Your task to perform on an android device: change notification settings in the gmail app Image 0: 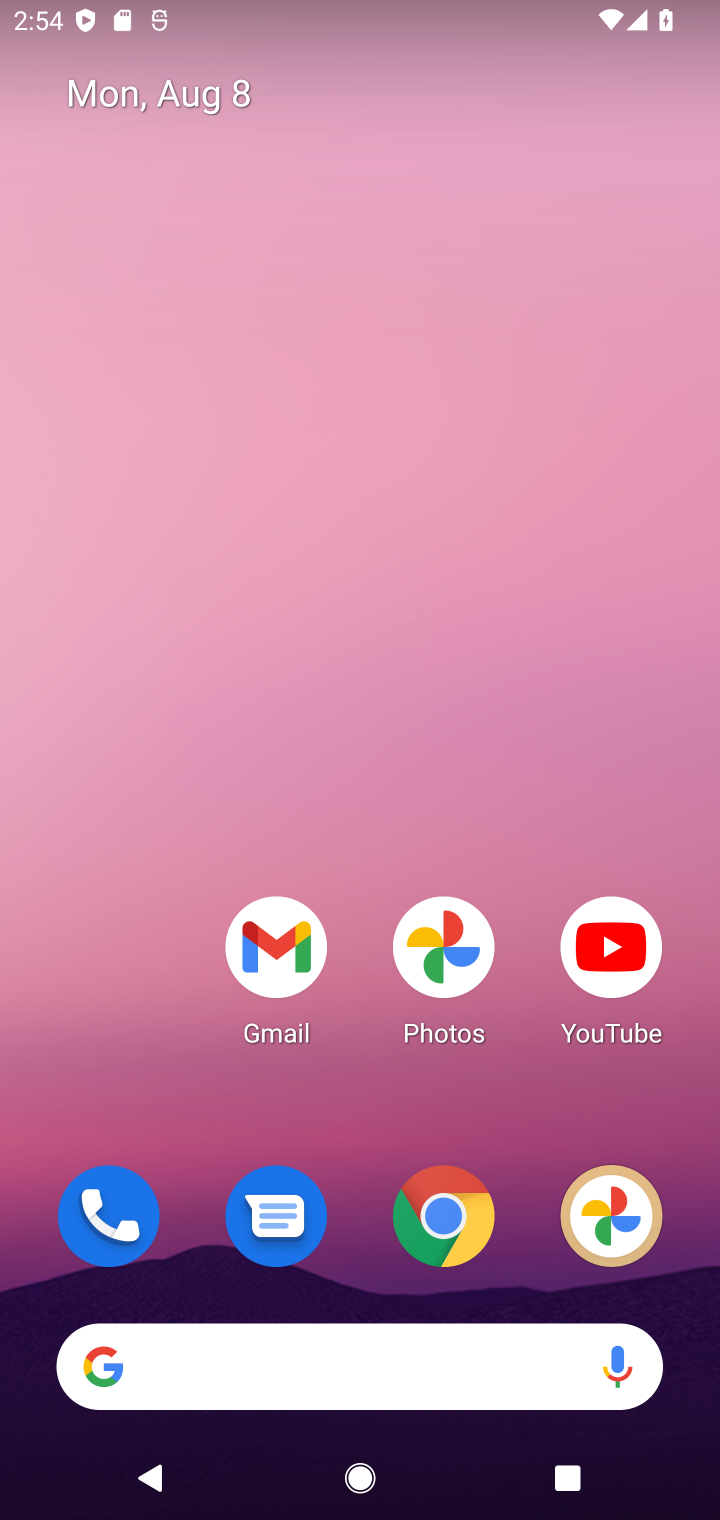
Step 0: click (294, 979)
Your task to perform on an android device: change notification settings in the gmail app Image 1: 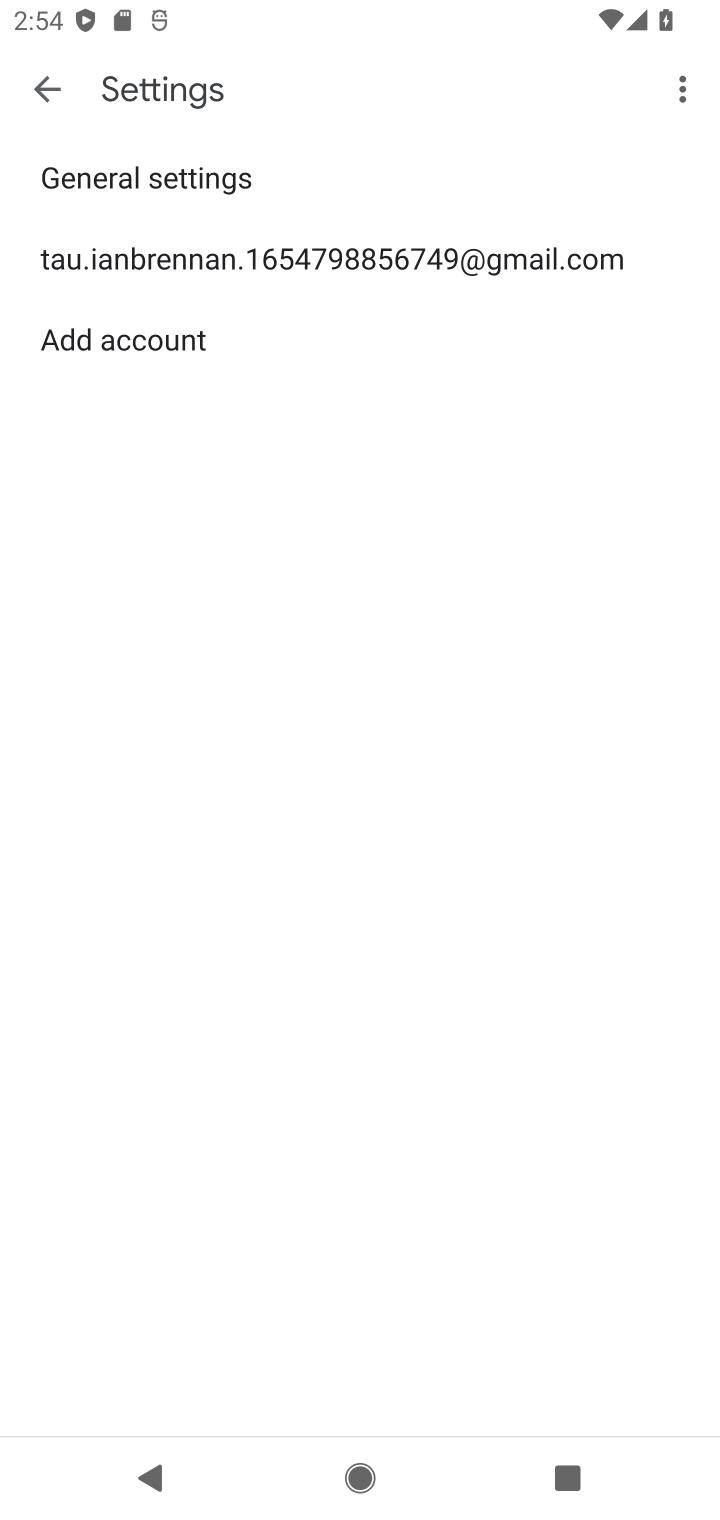
Step 1: click (328, 255)
Your task to perform on an android device: change notification settings in the gmail app Image 2: 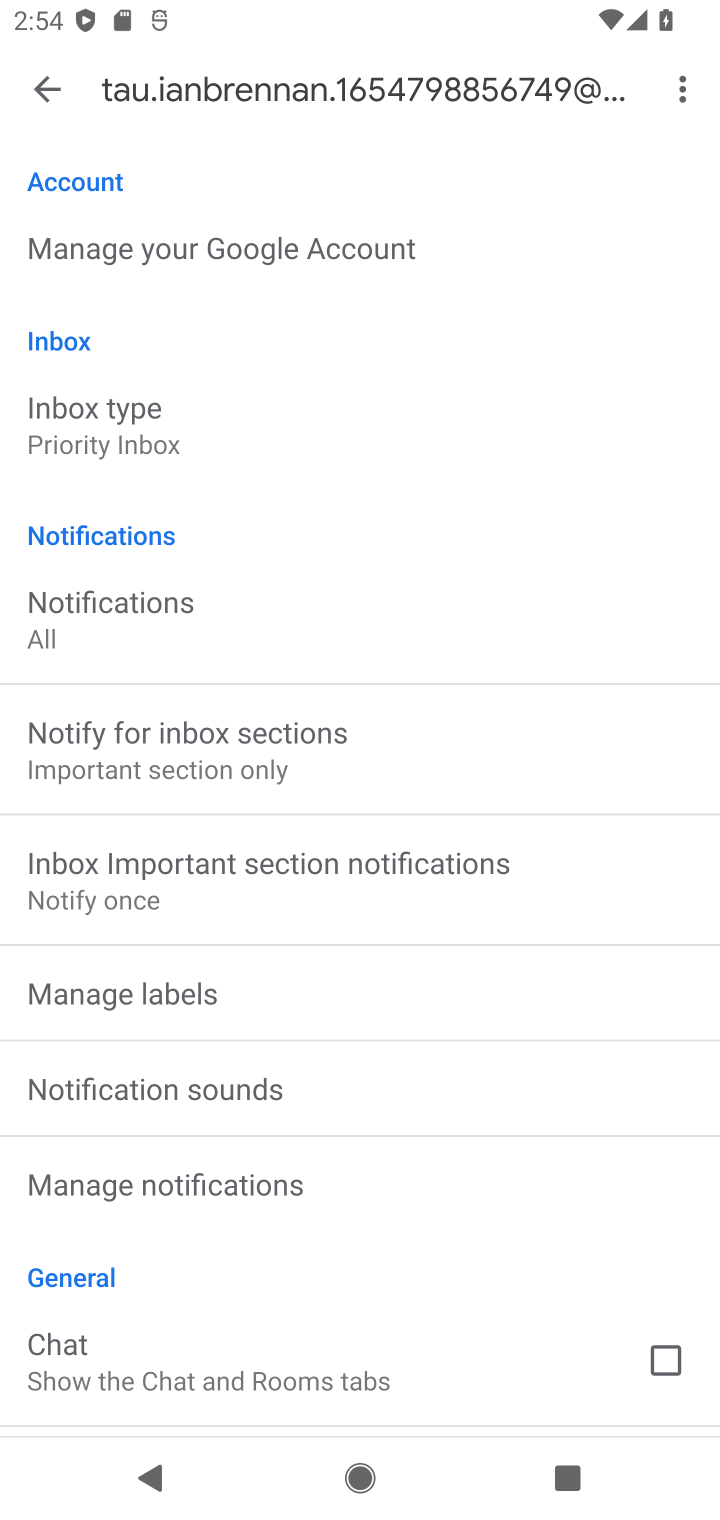
Step 2: click (417, 1234)
Your task to perform on an android device: change notification settings in the gmail app Image 3: 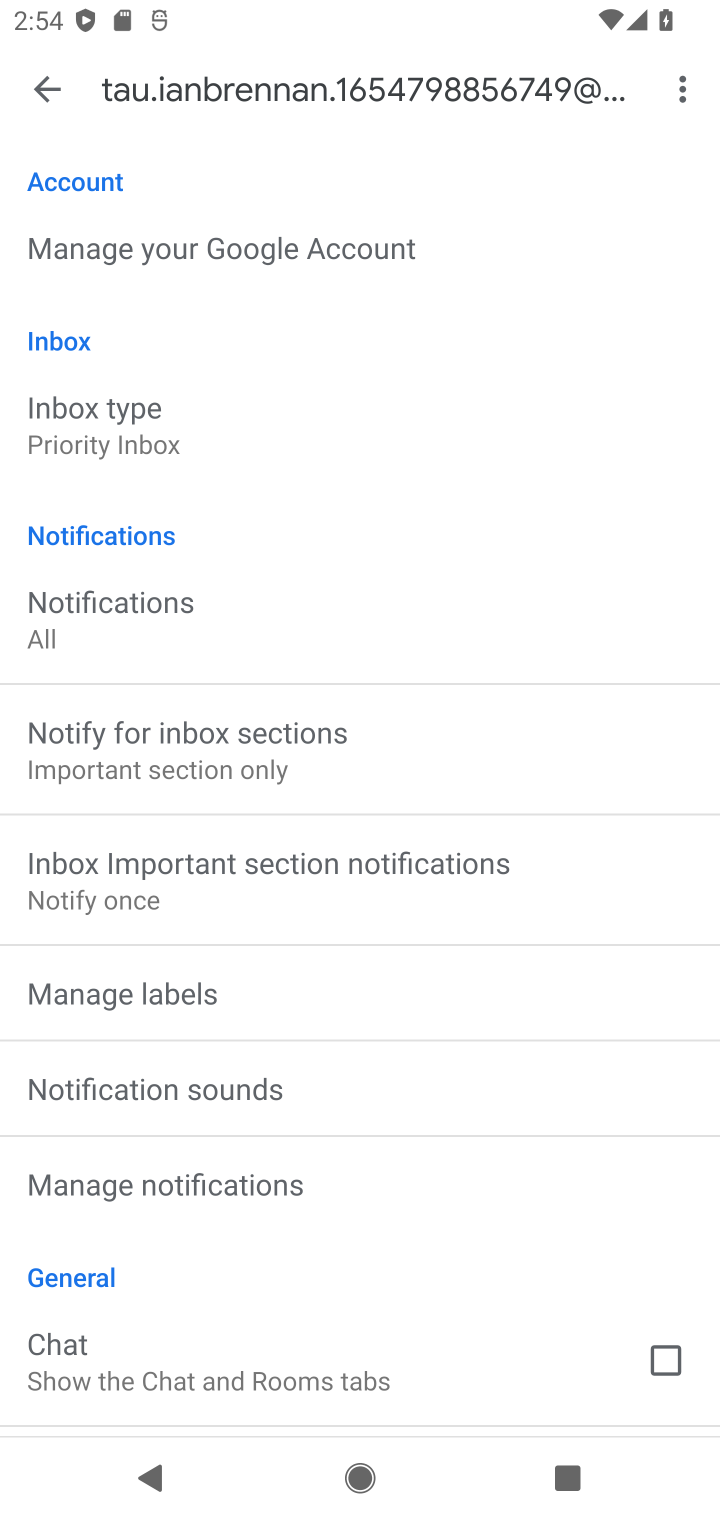
Step 3: click (339, 1207)
Your task to perform on an android device: change notification settings in the gmail app Image 4: 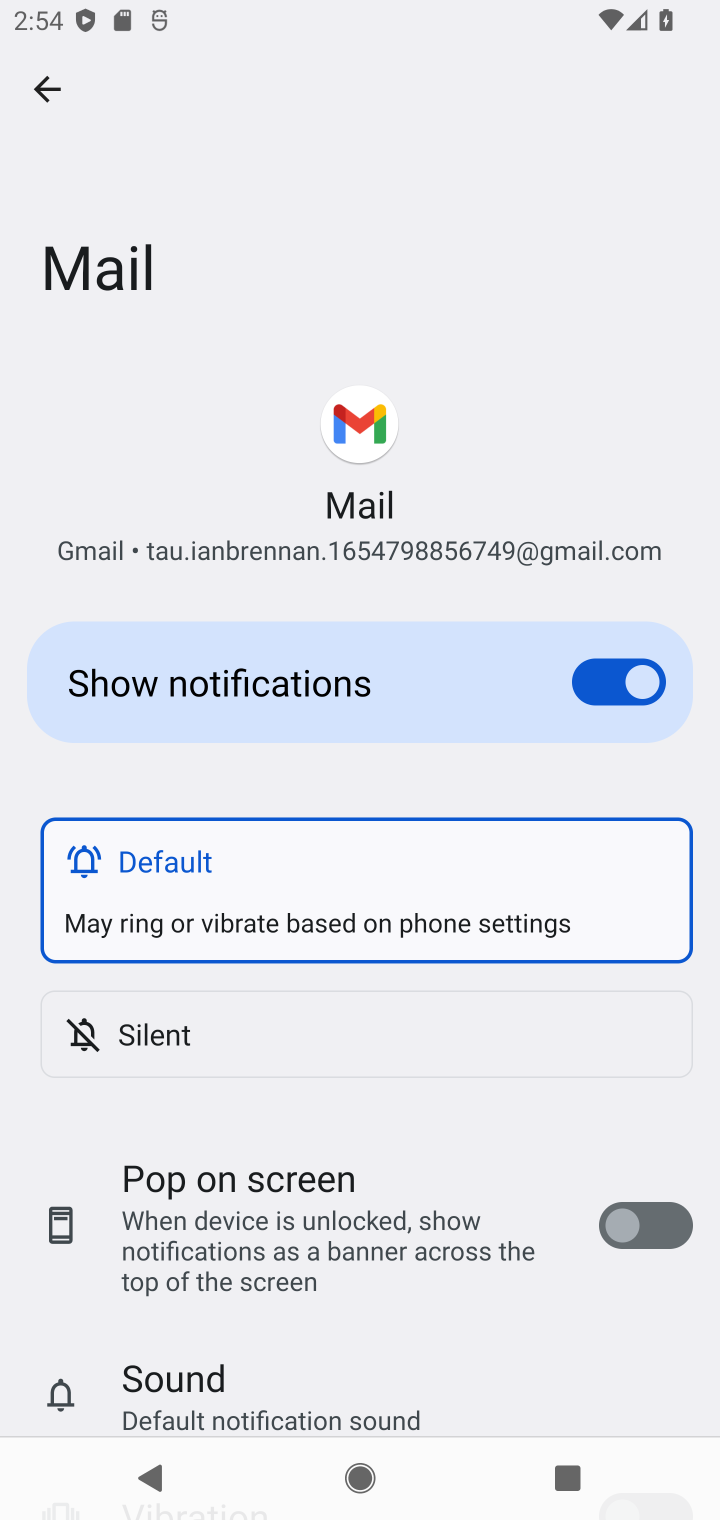
Step 4: drag from (483, 1409) to (463, 69)
Your task to perform on an android device: change notification settings in the gmail app Image 5: 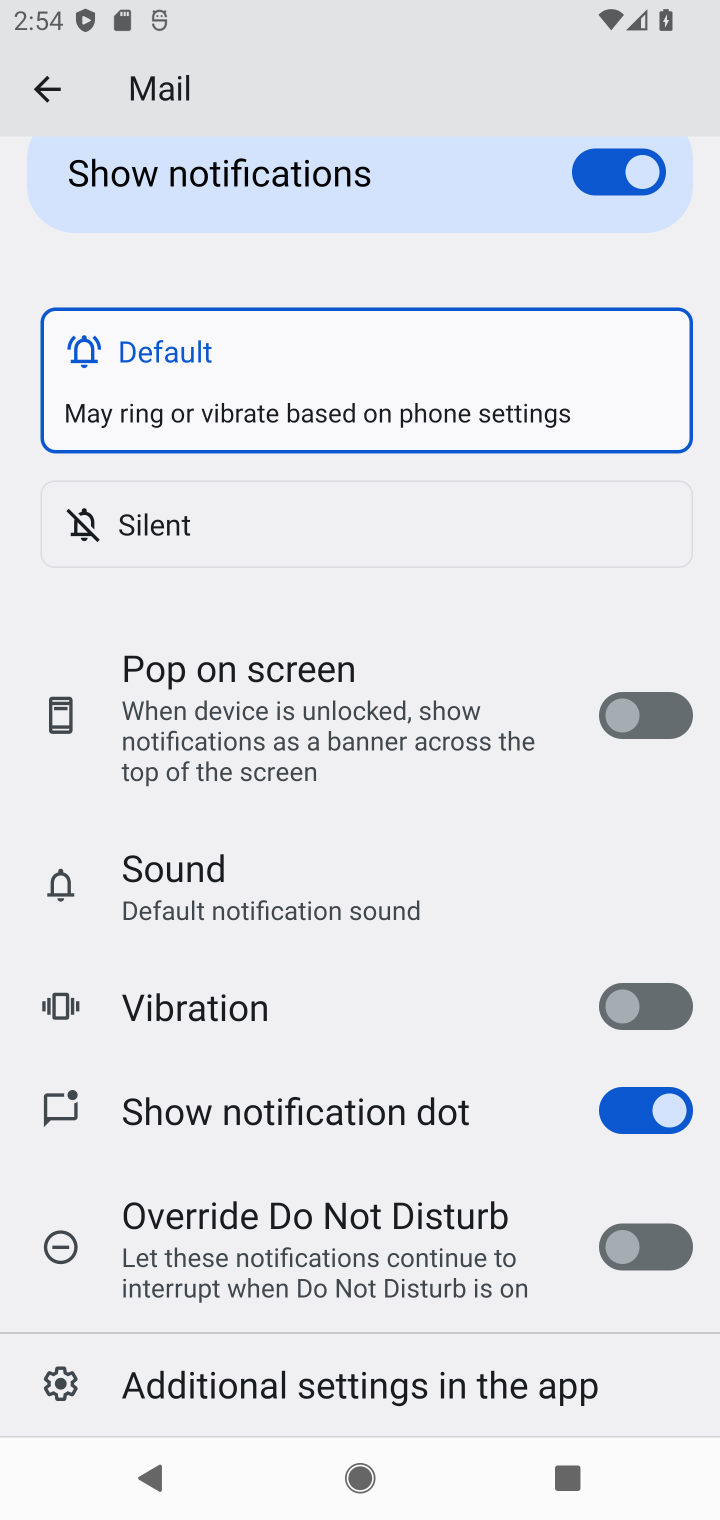
Step 5: click (649, 731)
Your task to perform on an android device: change notification settings in the gmail app Image 6: 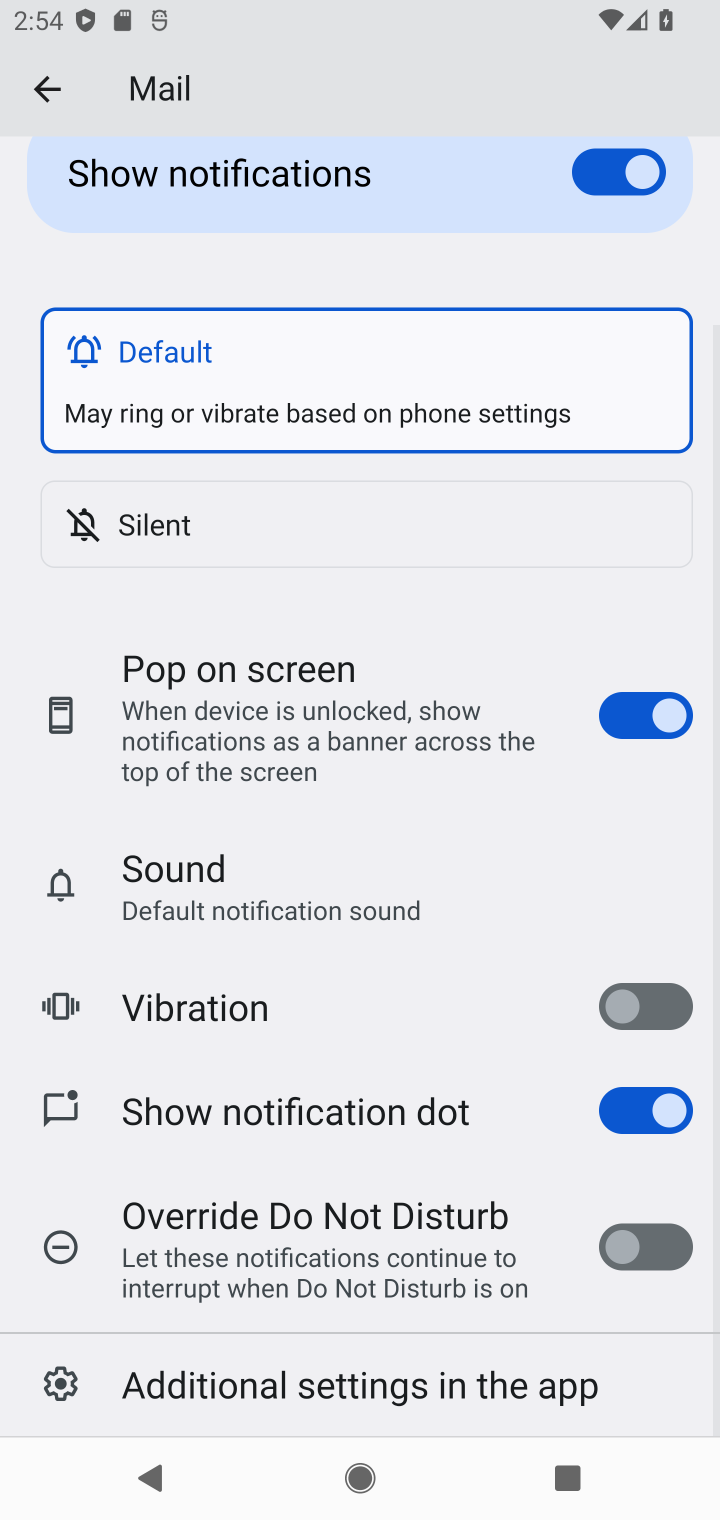
Step 6: click (654, 1028)
Your task to perform on an android device: change notification settings in the gmail app Image 7: 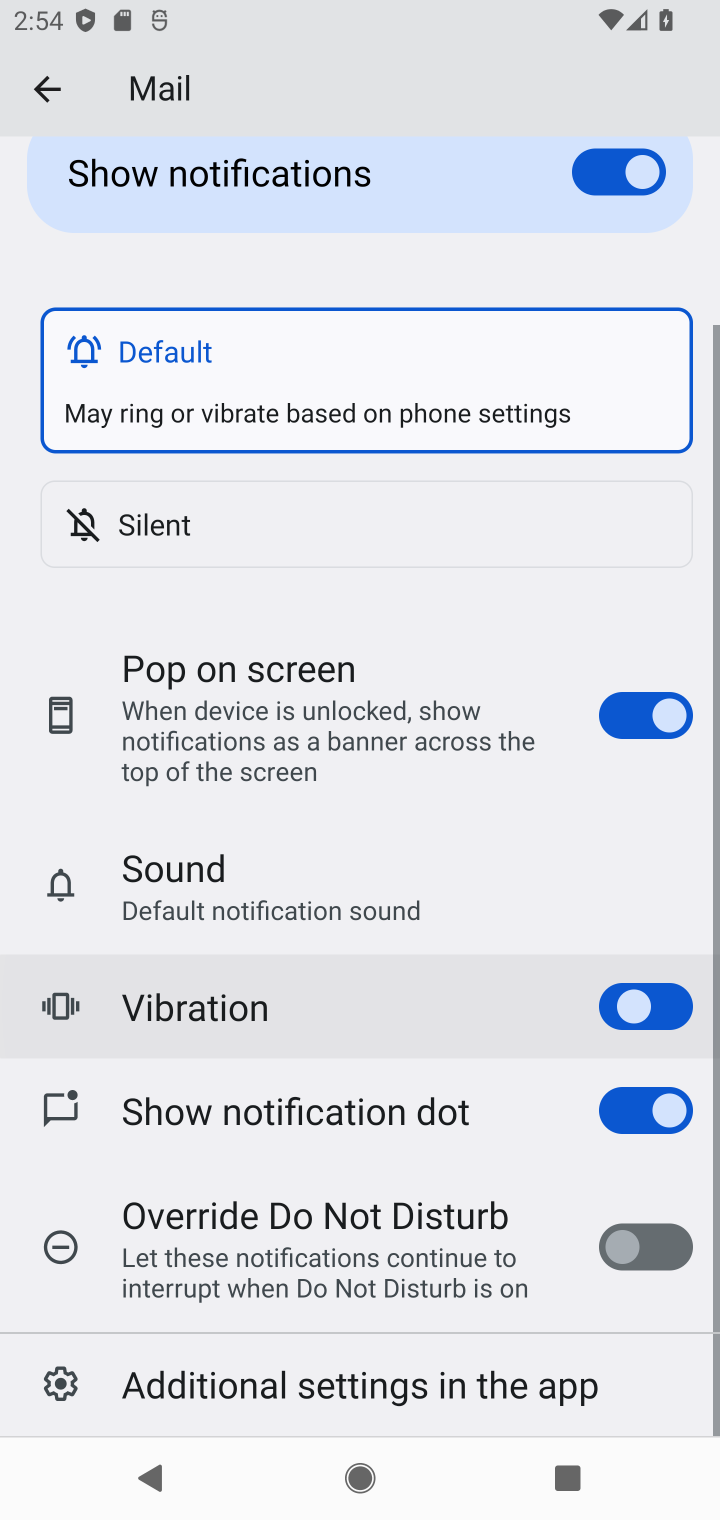
Step 7: click (641, 1128)
Your task to perform on an android device: change notification settings in the gmail app Image 8: 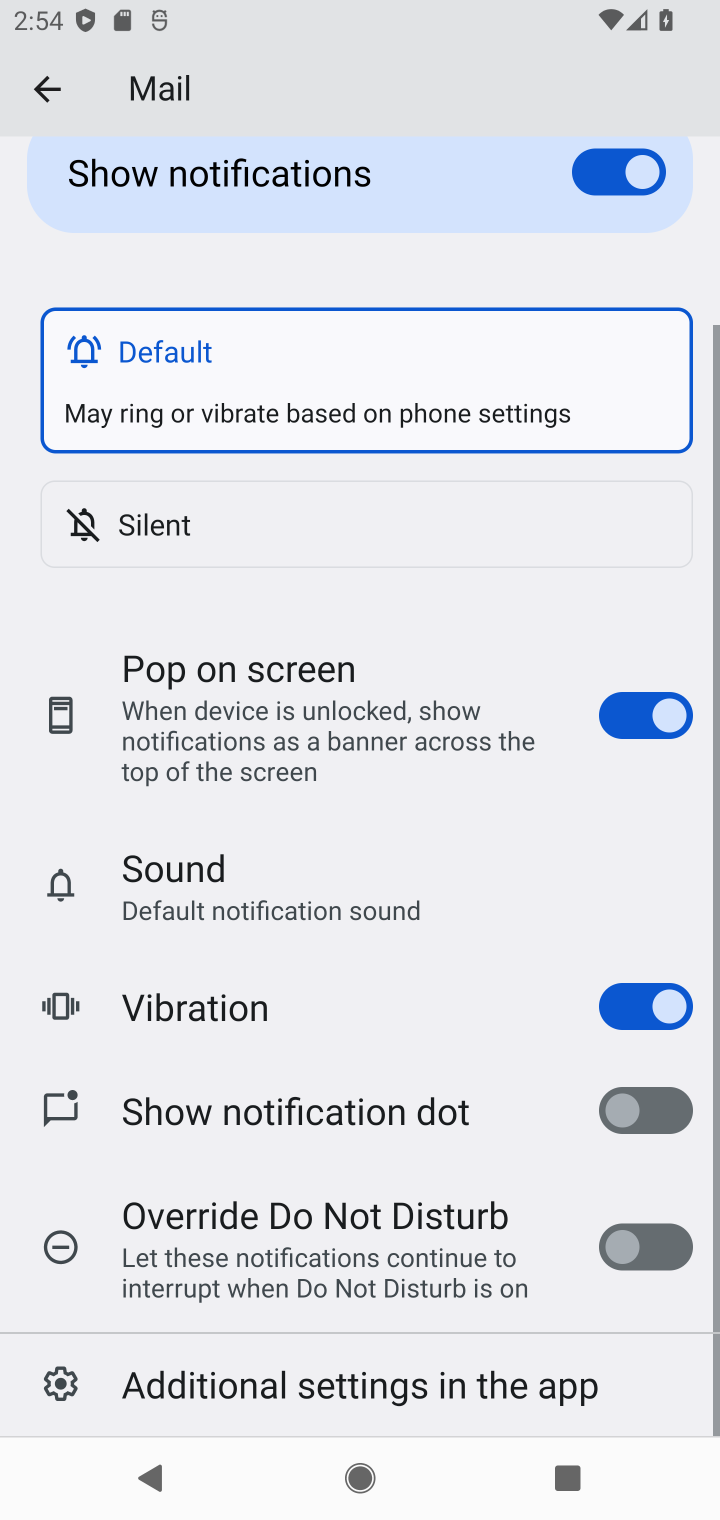
Step 8: click (654, 1249)
Your task to perform on an android device: change notification settings in the gmail app Image 9: 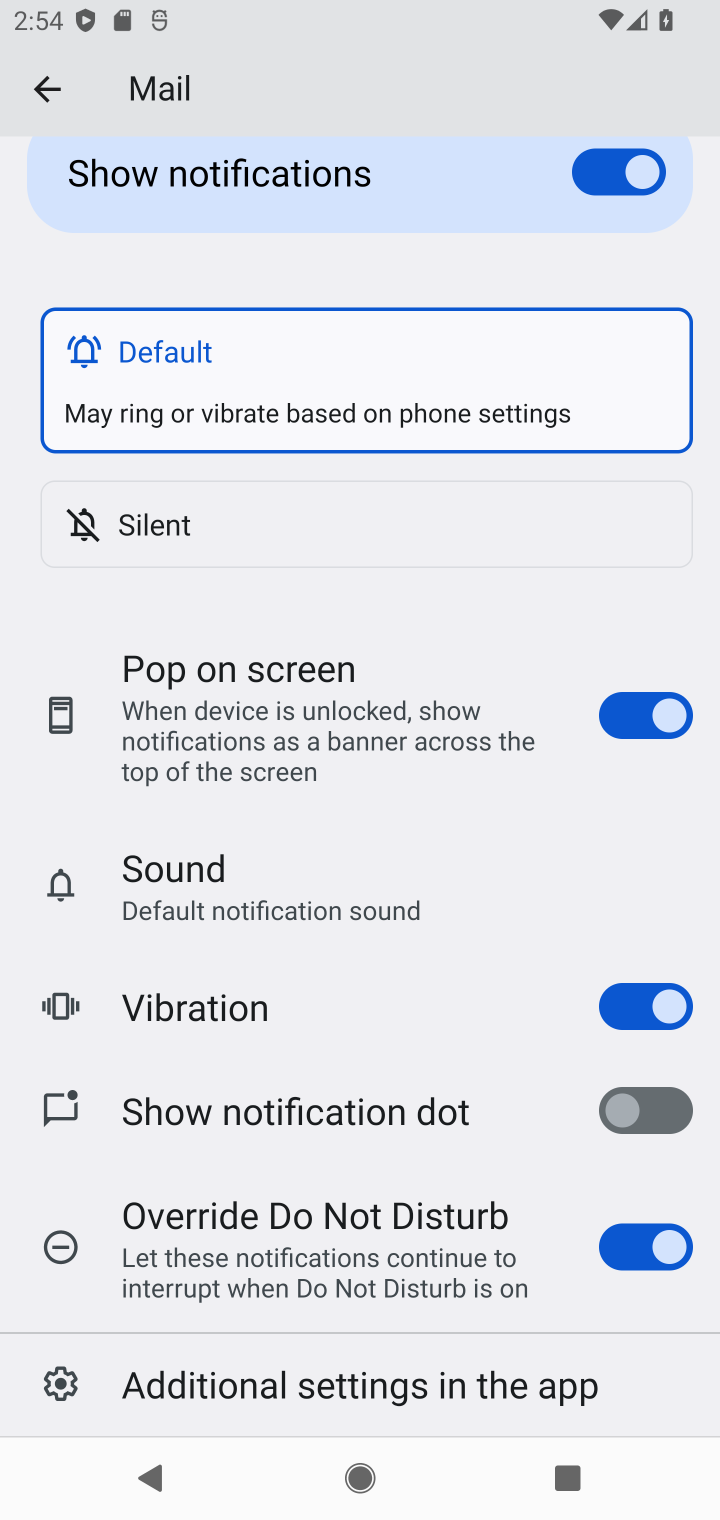
Step 9: task complete